Your task to perform on an android device: turn off picture-in-picture Image 0: 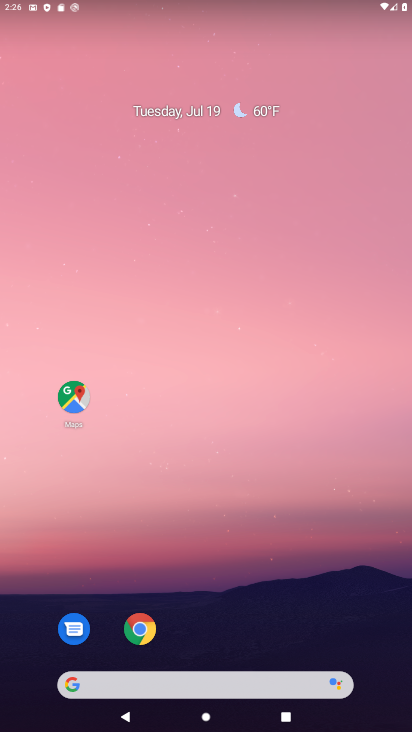
Step 0: drag from (252, 573) to (241, 186)
Your task to perform on an android device: turn off picture-in-picture Image 1: 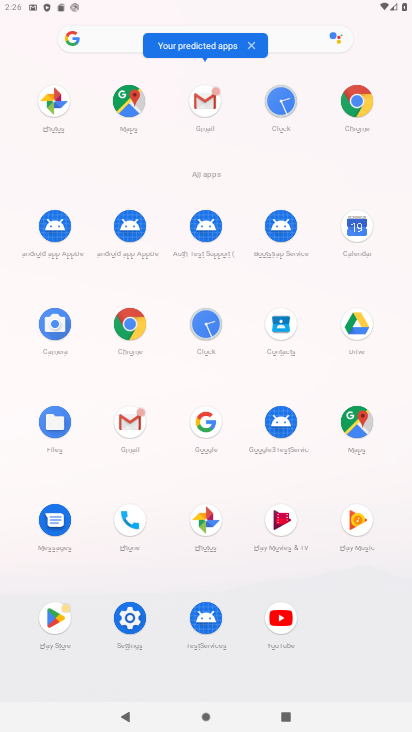
Step 1: click (207, 523)
Your task to perform on an android device: turn off picture-in-picture Image 2: 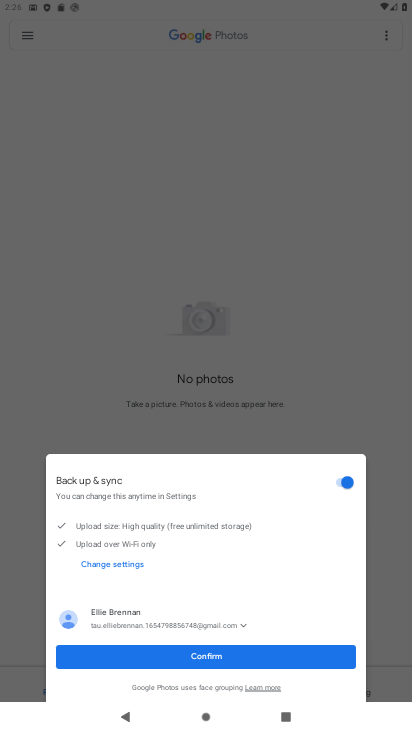
Step 2: task complete